Your task to perform on an android device: toggle location history Image 0: 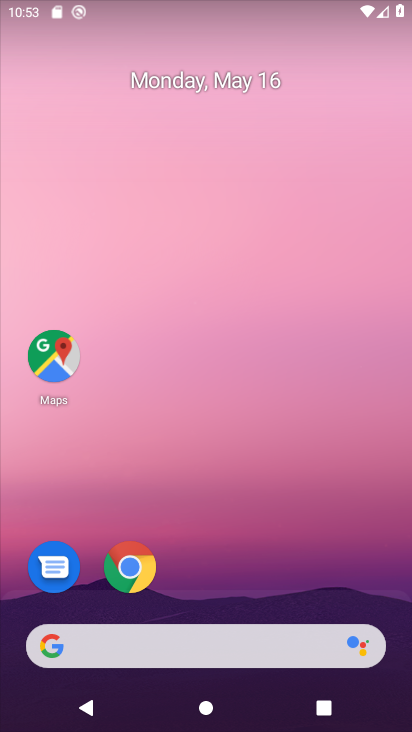
Step 0: drag from (212, 604) to (408, 580)
Your task to perform on an android device: toggle location history Image 1: 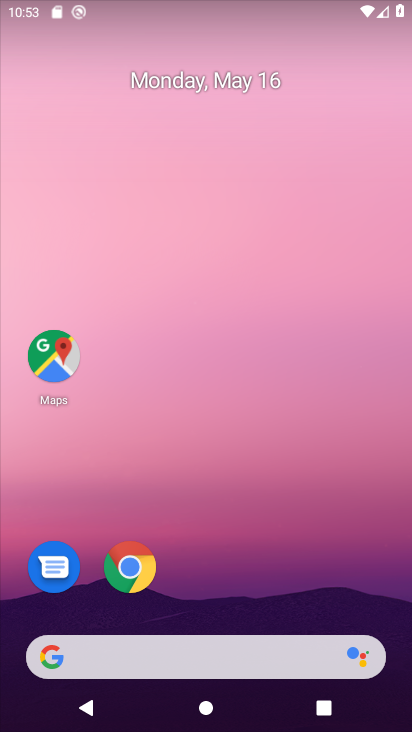
Step 1: drag from (214, 594) to (315, 95)
Your task to perform on an android device: toggle location history Image 2: 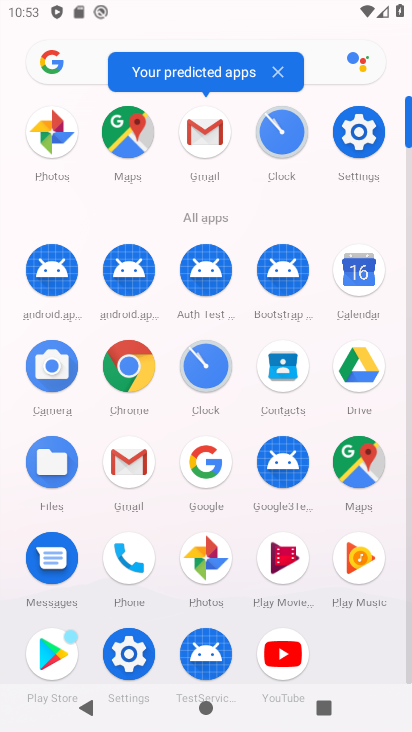
Step 2: click (135, 658)
Your task to perform on an android device: toggle location history Image 3: 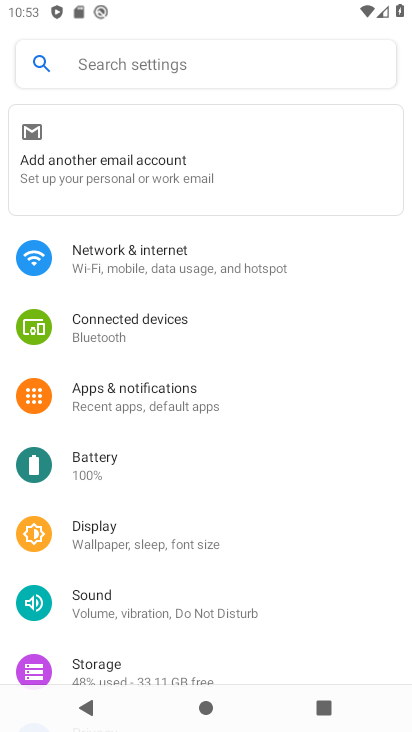
Step 3: drag from (135, 649) to (263, 222)
Your task to perform on an android device: toggle location history Image 4: 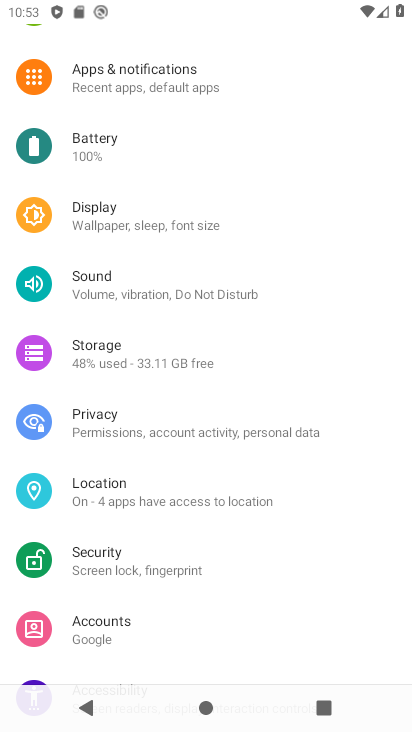
Step 4: click (144, 483)
Your task to perform on an android device: toggle location history Image 5: 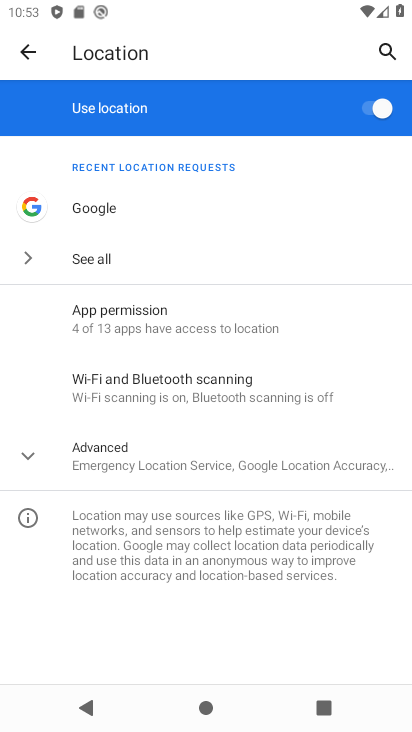
Step 5: click (218, 470)
Your task to perform on an android device: toggle location history Image 6: 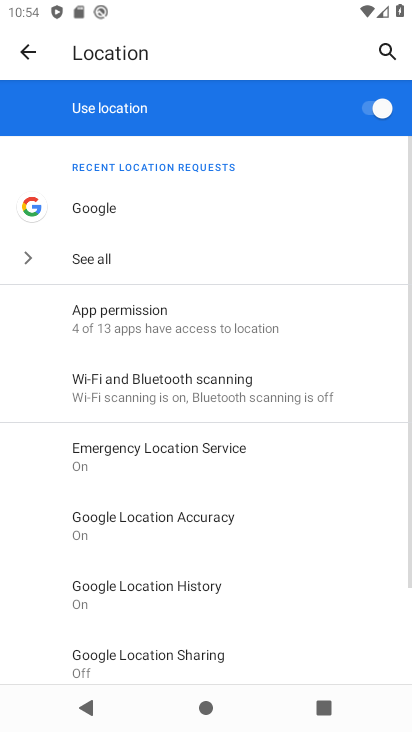
Step 6: click (243, 595)
Your task to perform on an android device: toggle location history Image 7: 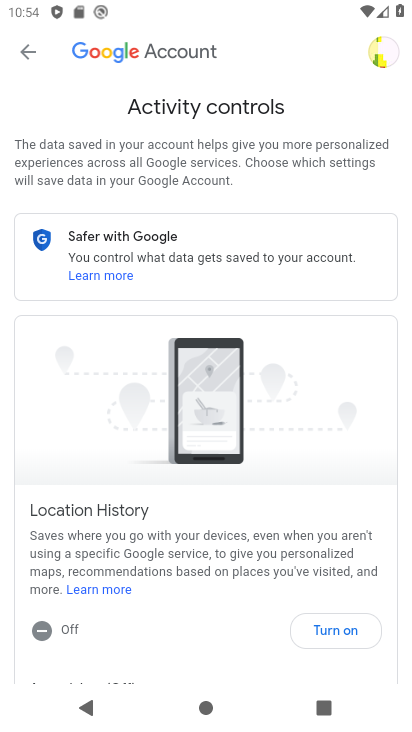
Step 7: drag from (171, 599) to (249, 360)
Your task to perform on an android device: toggle location history Image 8: 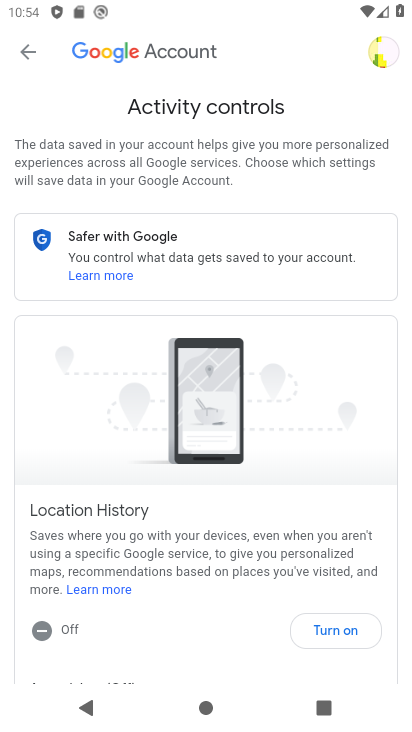
Step 8: click (349, 630)
Your task to perform on an android device: toggle location history Image 9: 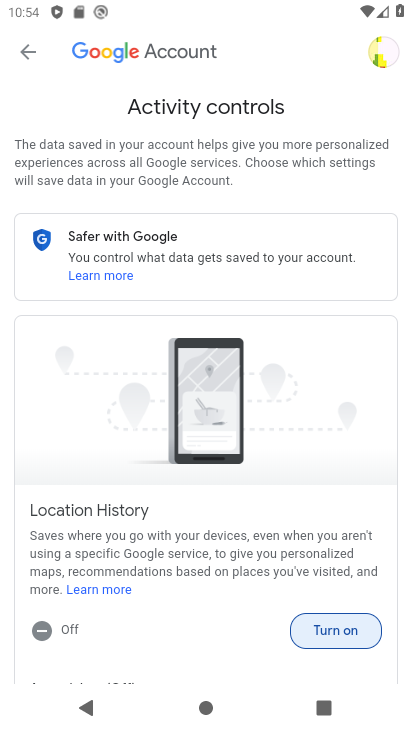
Step 9: click (353, 625)
Your task to perform on an android device: toggle location history Image 10: 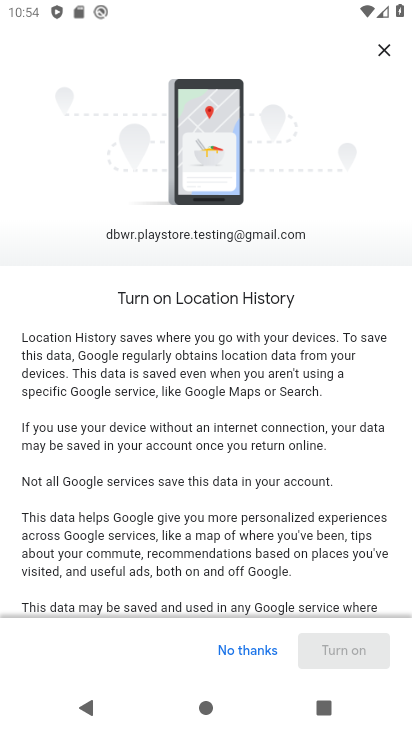
Step 10: drag from (241, 549) to (404, 53)
Your task to perform on an android device: toggle location history Image 11: 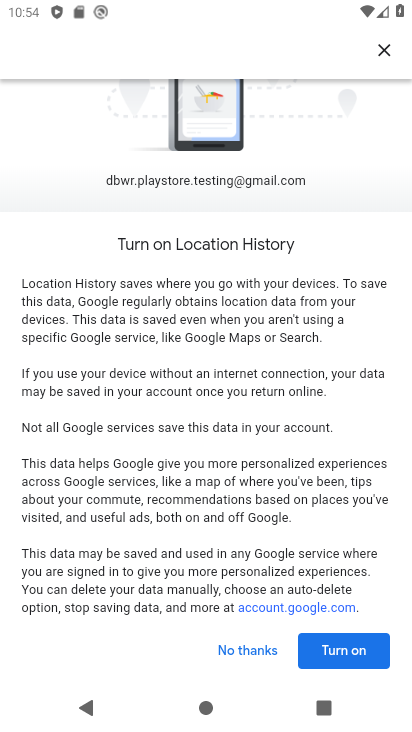
Step 11: click (360, 645)
Your task to perform on an android device: toggle location history Image 12: 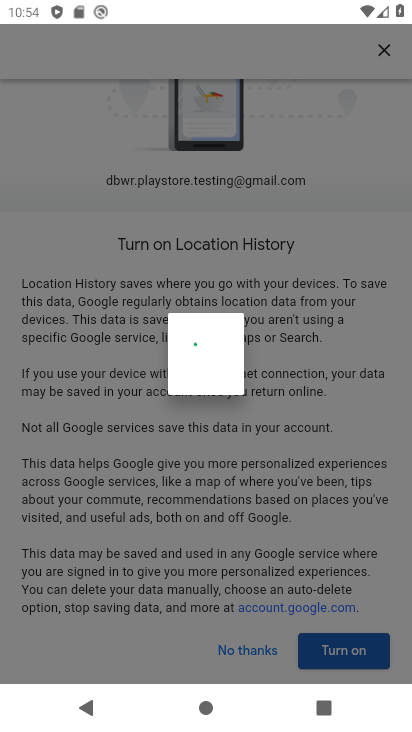
Step 12: click (352, 636)
Your task to perform on an android device: toggle location history Image 13: 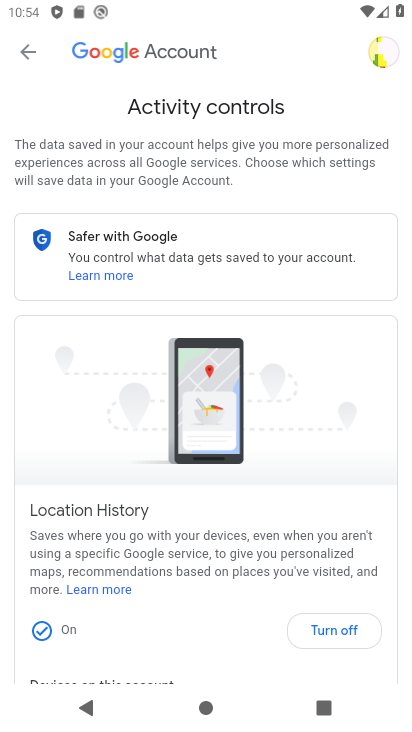
Step 13: task complete